Your task to perform on an android device: Open Maps and search for coffee Image 0: 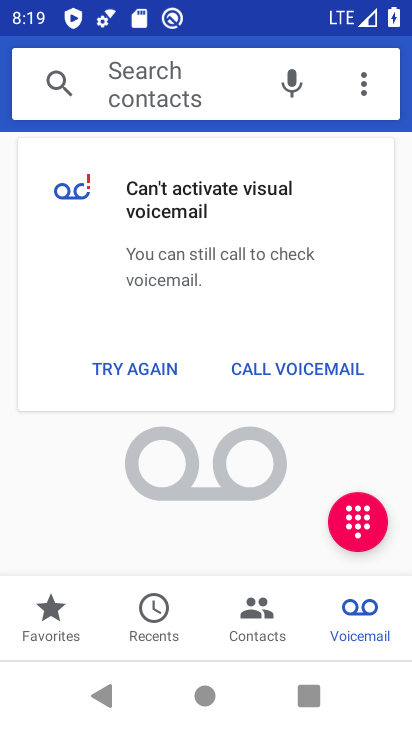
Step 0: press home button
Your task to perform on an android device: Open Maps and search for coffee Image 1: 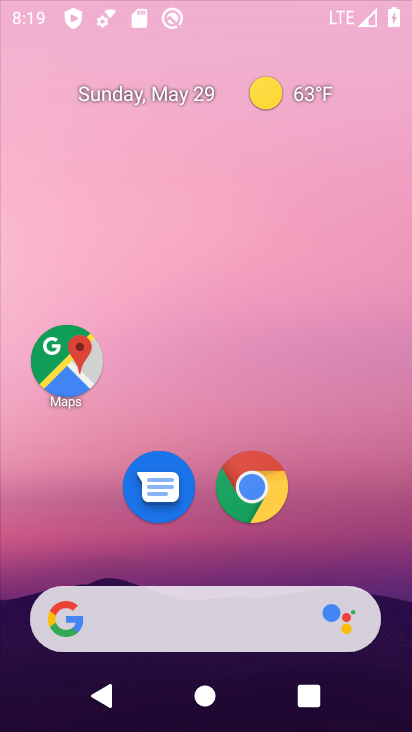
Step 1: drag from (240, 636) to (248, 163)
Your task to perform on an android device: Open Maps and search for coffee Image 2: 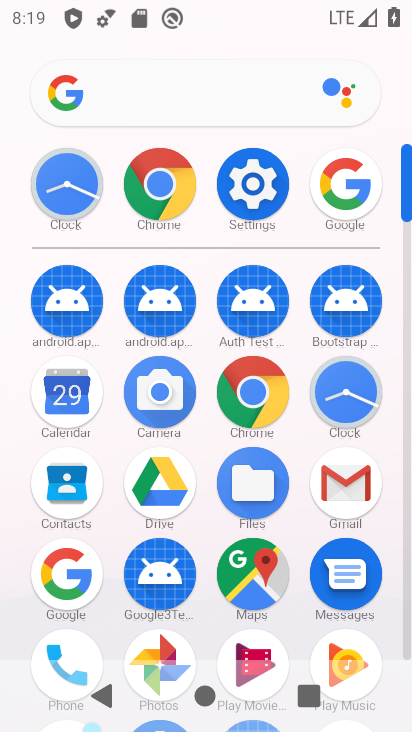
Step 2: click (255, 577)
Your task to perform on an android device: Open Maps and search for coffee Image 3: 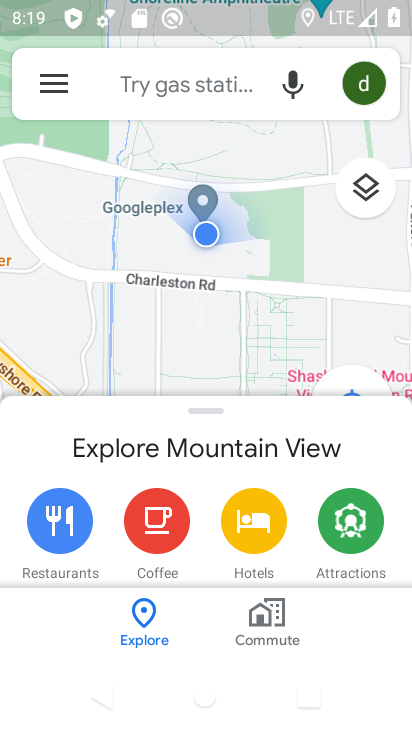
Step 3: click (191, 83)
Your task to perform on an android device: Open Maps and search for coffee Image 4: 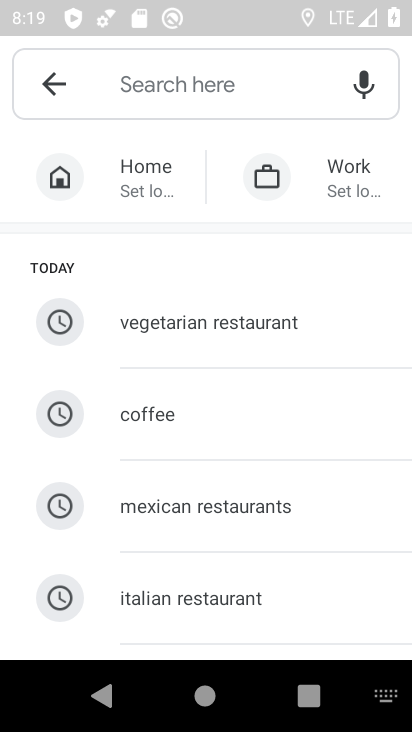
Step 4: type "coffee"
Your task to perform on an android device: Open Maps and search for coffee Image 5: 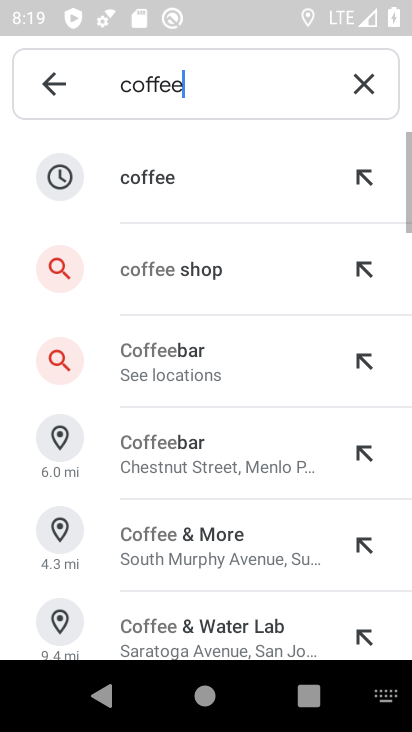
Step 5: click (147, 196)
Your task to perform on an android device: Open Maps and search for coffee Image 6: 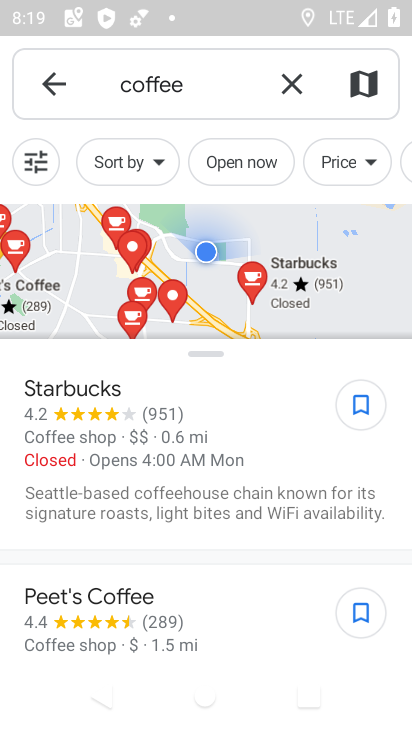
Step 6: task complete